Your task to perform on an android device: toggle show notifications on the lock screen Image 0: 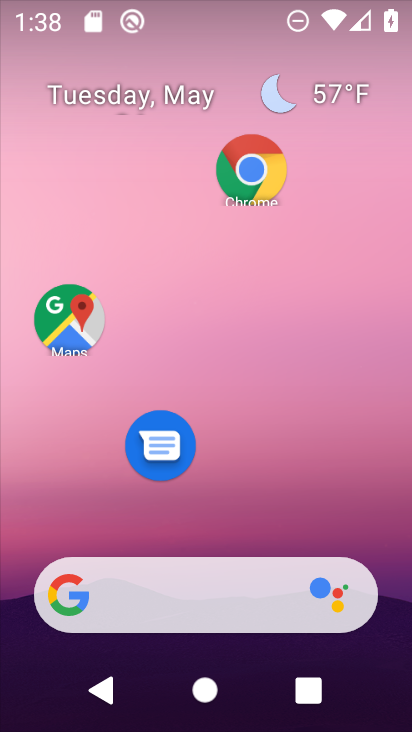
Step 0: drag from (219, 723) to (188, 98)
Your task to perform on an android device: toggle show notifications on the lock screen Image 1: 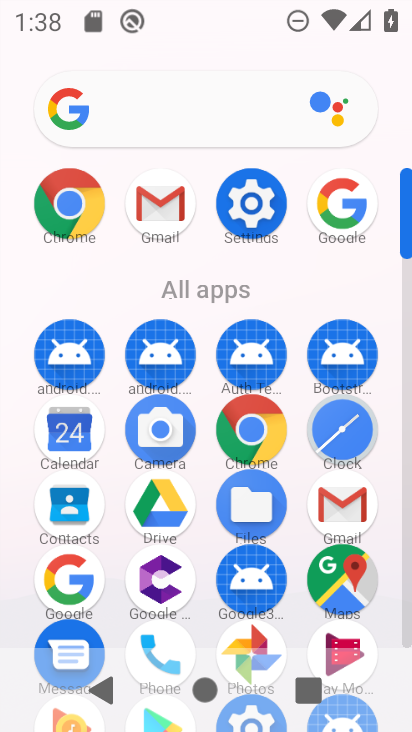
Step 1: click (254, 204)
Your task to perform on an android device: toggle show notifications on the lock screen Image 2: 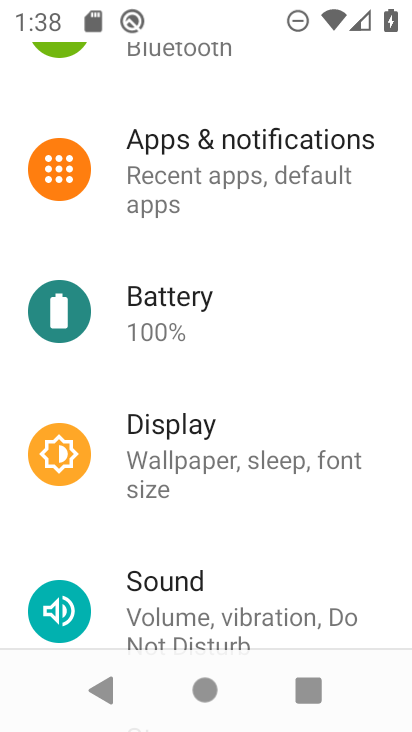
Step 2: click (204, 179)
Your task to perform on an android device: toggle show notifications on the lock screen Image 3: 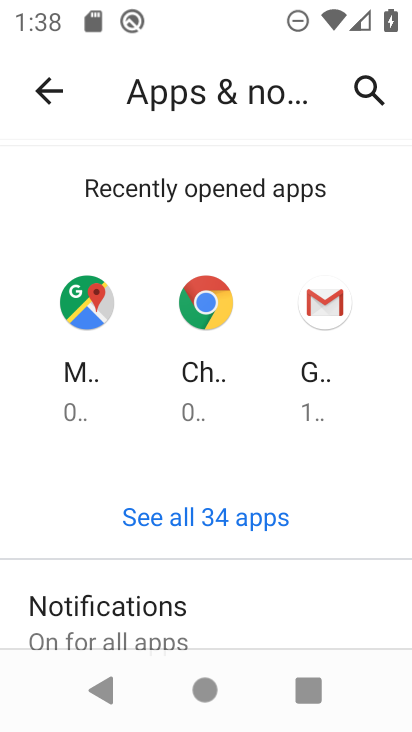
Step 3: drag from (181, 628) to (184, 362)
Your task to perform on an android device: toggle show notifications on the lock screen Image 4: 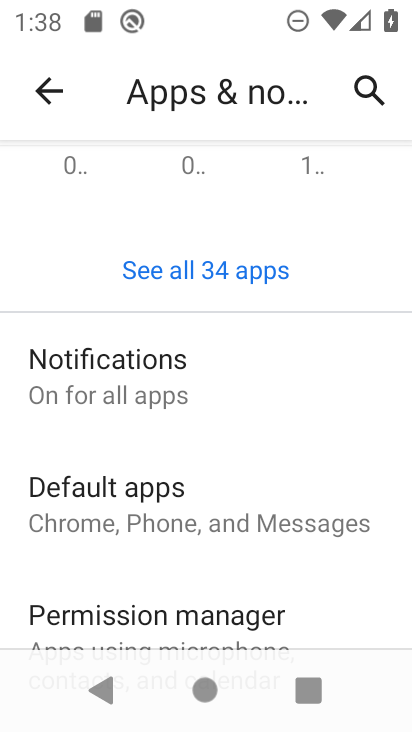
Step 4: click (144, 383)
Your task to perform on an android device: toggle show notifications on the lock screen Image 5: 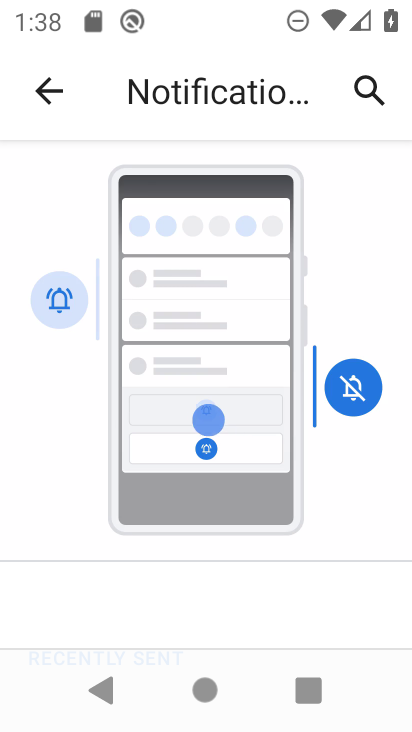
Step 5: drag from (200, 623) to (207, 306)
Your task to perform on an android device: toggle show notifications on the lock screen Image 6: 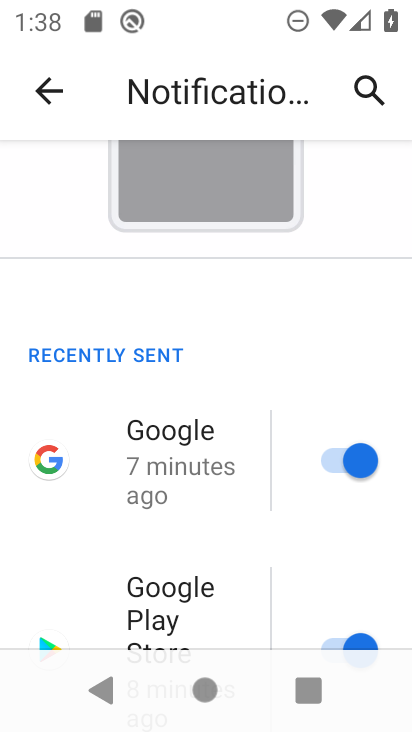
Step 6: drag from (216, 629) to (216, 275)
Your task to perform on an android device: toggle show notifications on the lock screen Image 7: 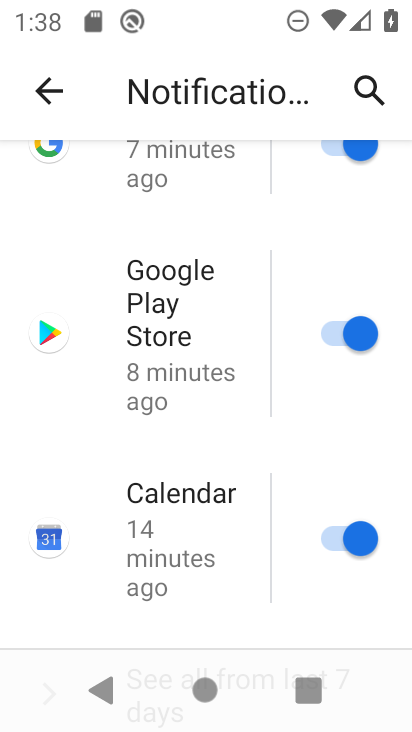
Step 7: drag from (211, 625) to (217, 243)
Your task to perform on an android device: toggle show notifications on the lock screen Image 8: 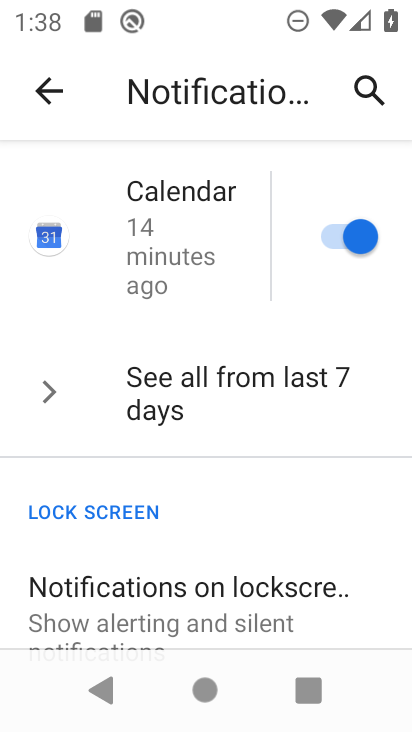
Step 8: drag from (221, 604) to (217, 302)
Your task to perform on an android device: toggle show notifications on the lock screen Image 9: 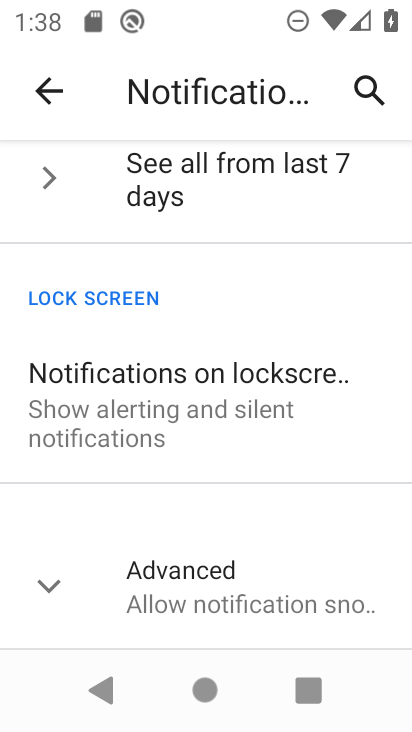
Step 9: click (189, 389)
Your task to perform on an android device: toggle show notifications on the lock screen Image 10: 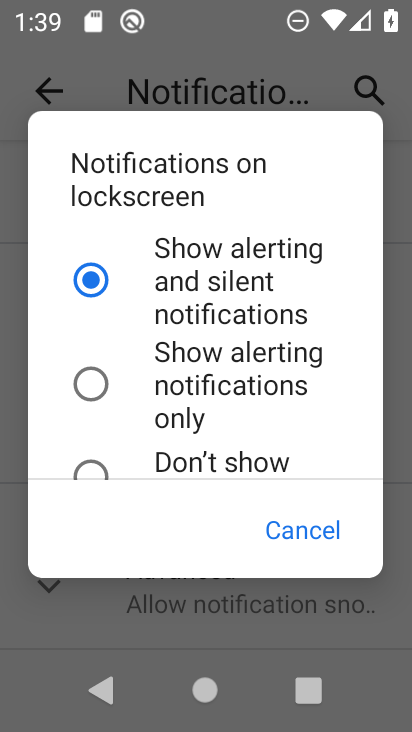
Step 10: click (94, 387)
Your task to perform on an android device: toggle show notifications on the lock screen Image 11: 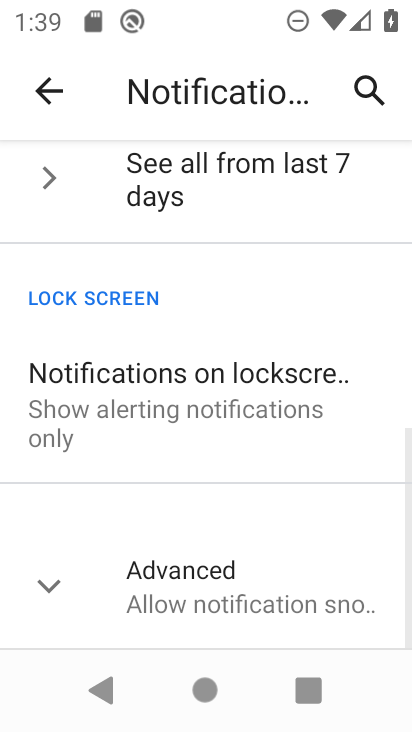
Step 11: task complete